Your task to perform on an android device: Go to Yahoo.com Image 0: 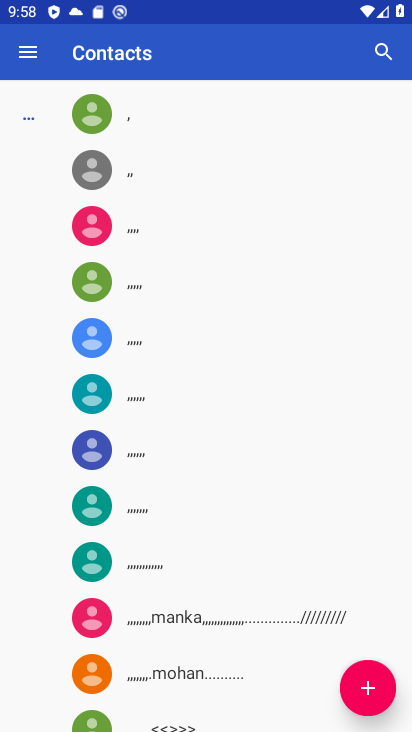
Step 0: press home button
Your task to perform on an android device: Go to Yahoo.com Image 1: 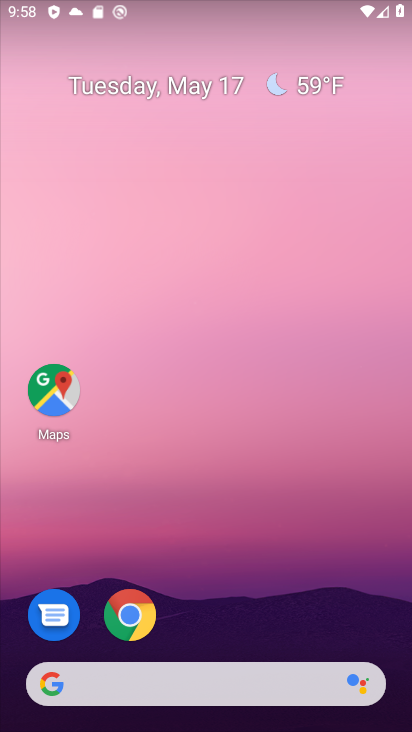
Step 1: click (136, 627)
Your task to perform on an android device: Go to Yahoo.com Image 2: 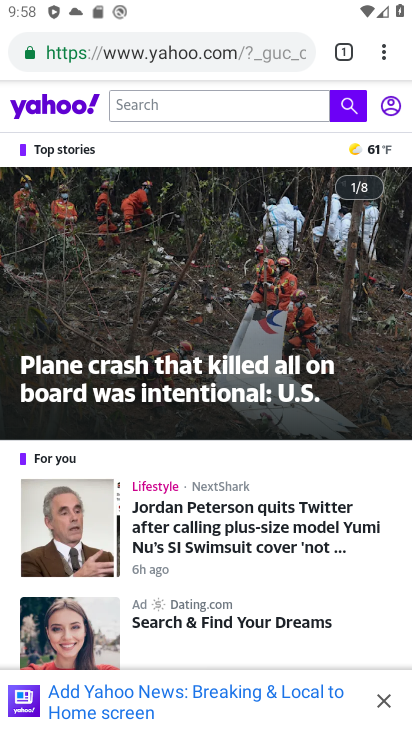
Step 2: task complete